Your task to perform on an android device: refresh tabs in the chrome app Image 0: 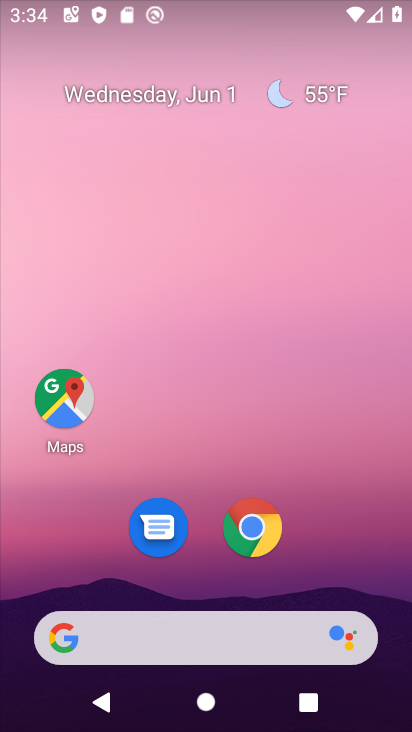
Step 0: drag from (373, 531) to (311, 5)
Your task to perform on an android device: refresh tabs in the chrome app Image 1: 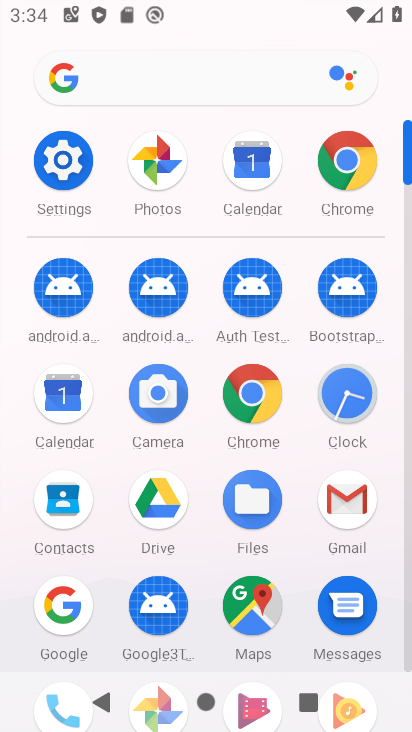
Step 1: click (342, 184)
Your task to perform on an android device: refresh tabs in the chrome app Image 2: 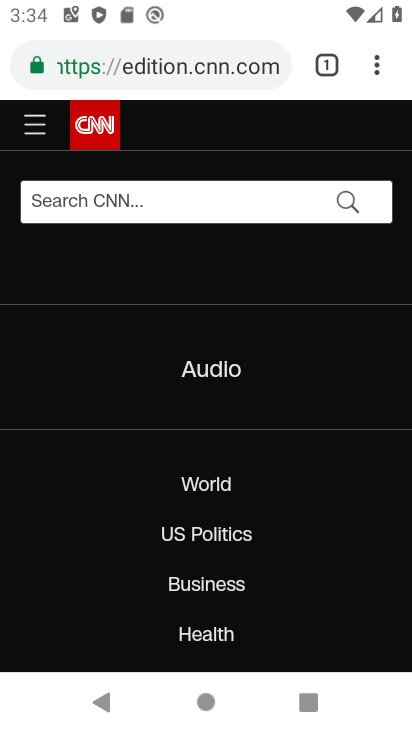
Step 2: click (373, 53)
Your task to perform on an android device: refresh tabs in the chrome app Image 3: 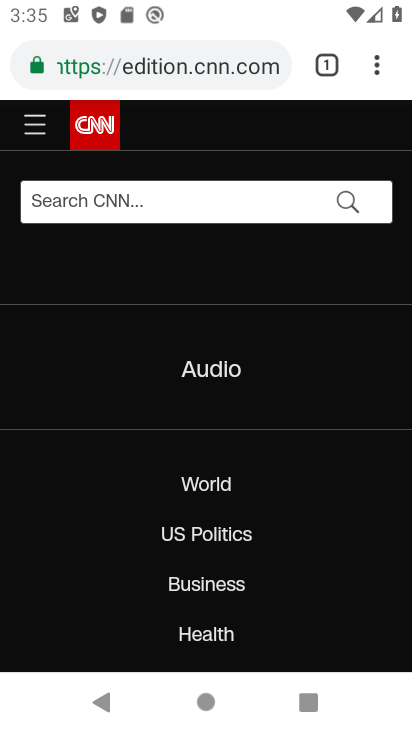
Step 3: click (379, 66)
Your task to perform on an android device: refresh tabs in the chrome app Image 4: 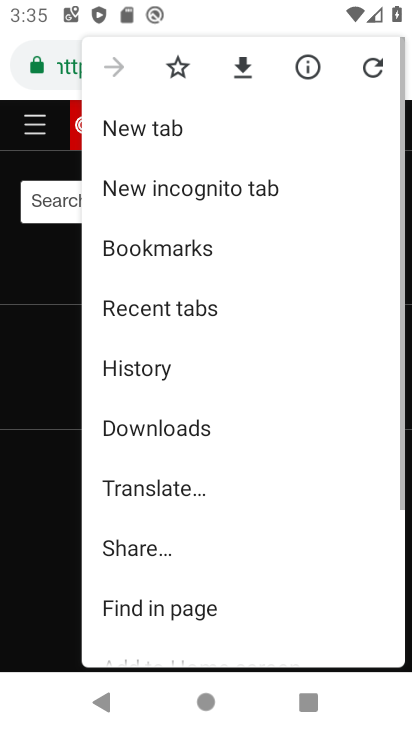
Step 4: click (379, 66)
Your task to perform on an android device: refresh tabs in the chrome app Image 5: 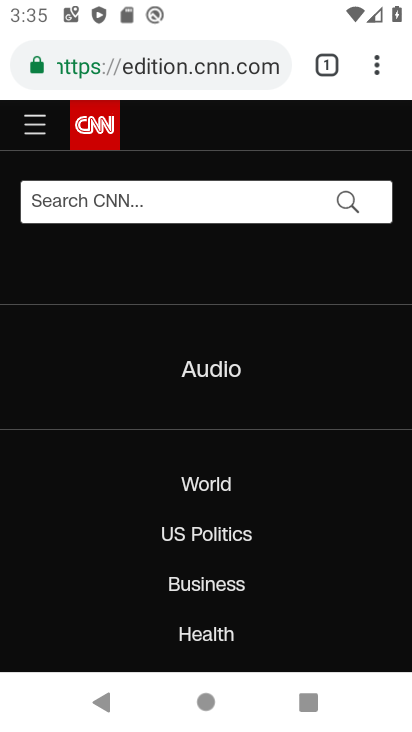
Step 5: task complete